Your task to perform on an android device: turn off data saver in the chrome app Image 0: 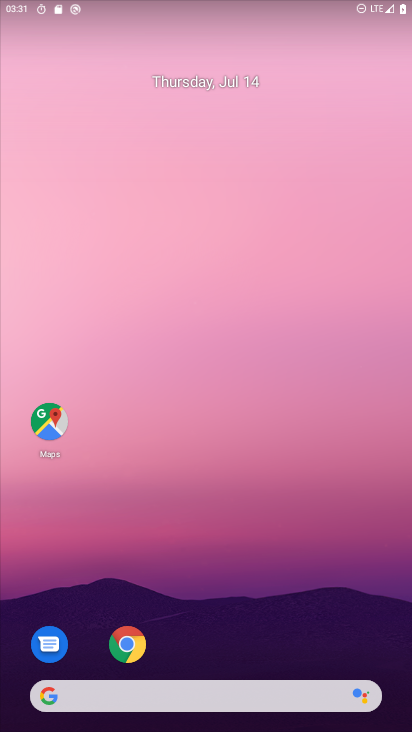
Step 0: drag from (287, 556) to (299, 73)
Your task to perform on an android device: turn off data saver in the chrome app Image 1: 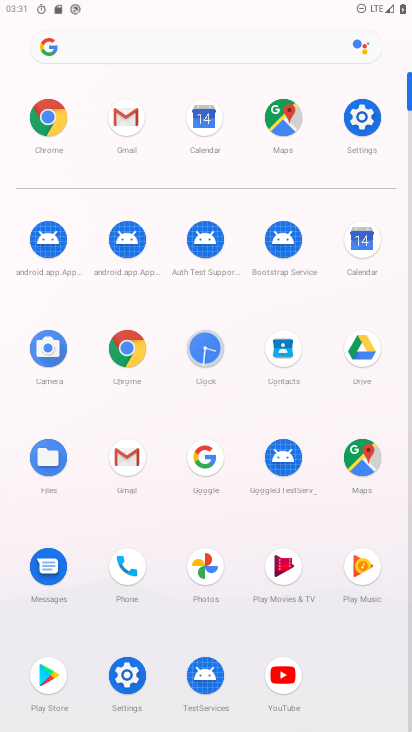
Step 1: click (128, 343)
Your task to perform on an android device: turn off data saver in the chrome app Image 2: 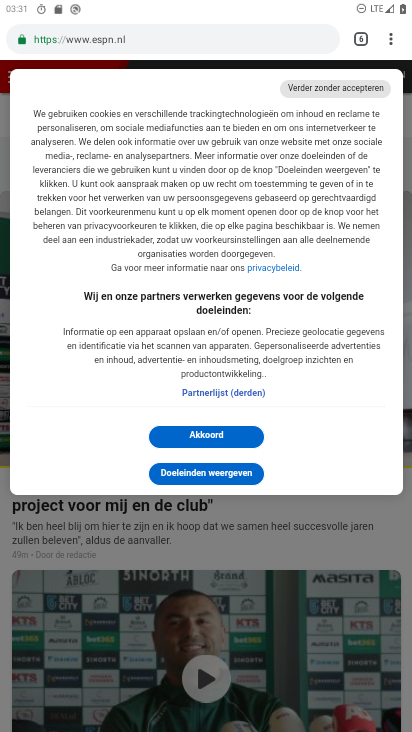
Step 2: drag from (387, 39) to (247, 473)
Your task to perform on an android device: turn off data saver in the chrome app Image 3: 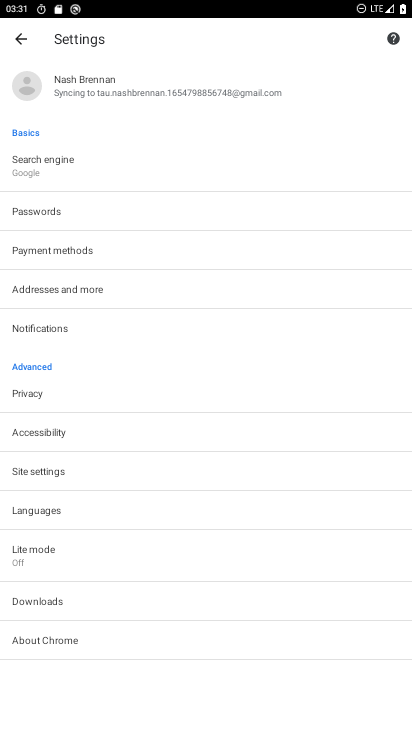
Step 3: click (48, 561)
Your task to perform on an android device: turn off data saver in the chrome app Image 4: 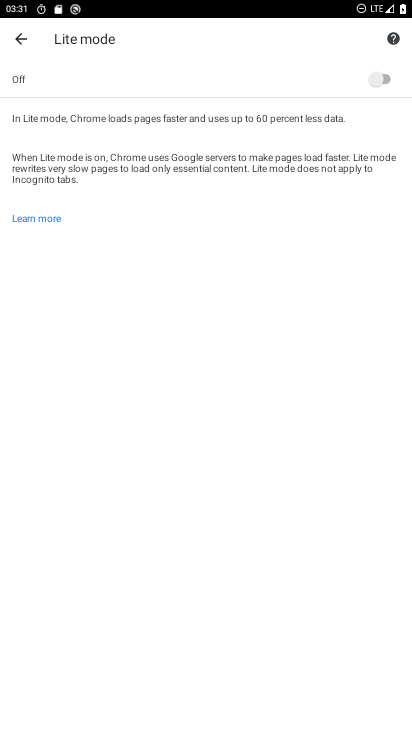
Step 4: task complete